Your task to perform on an android device: Open the phone app and click the voicemail tab. Image 0: 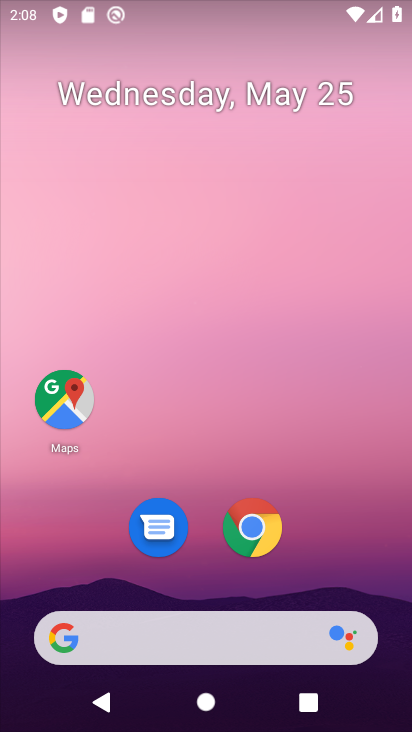
Step 0: click (268, 78)
Your task to perform on an android device: Open the phone app and click the voicemail tab. Image 1: 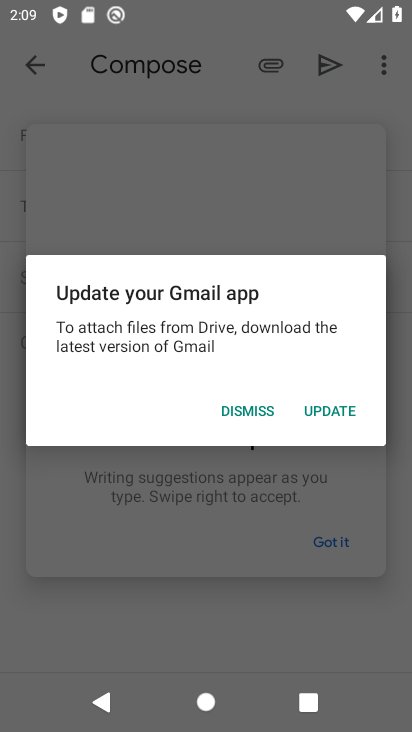
Step 1: press back button
Your task to perform on an android device: Open the phone app and click the voicemail tab. Image 2: 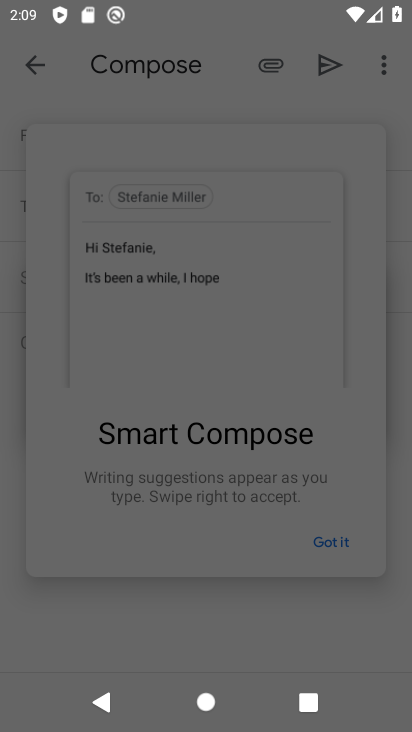
Step 2: press home button
Your task to perform on an android device: Open the phone app and click the voicemail tab. Image 3: 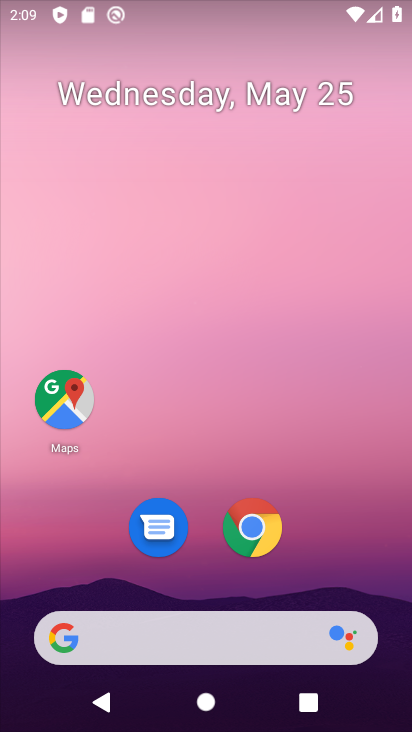
Step 3: drag from (214, 572) to (323, 154)
Your task to perform on an android device: Open the phone app and click the voicemail tab. Image 4: 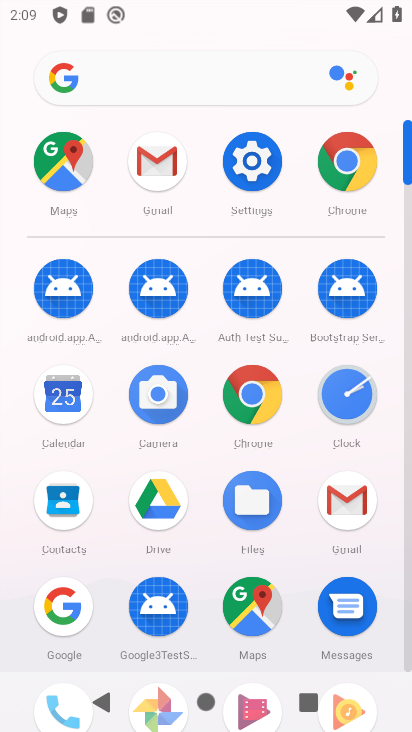
Step 4: drag from (203, 604) to (220, 265)
Your task to perform on an android device: Open the phone app and click the voicemail tab. Image 5: 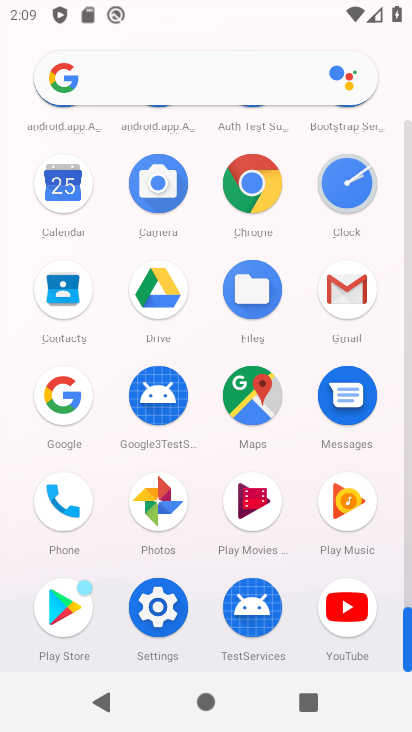
Step 5: click (55, 508)
Your task to perform on an android device: Open the phone app and click the voicemail tab. Image 6: 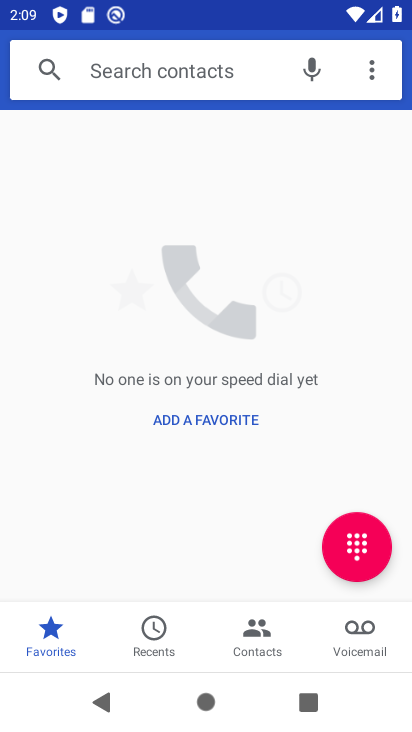
Step 6: click (340, 627)
Your task to perform on an android device: Open the phone app and click the voicemail tab. Image 7: 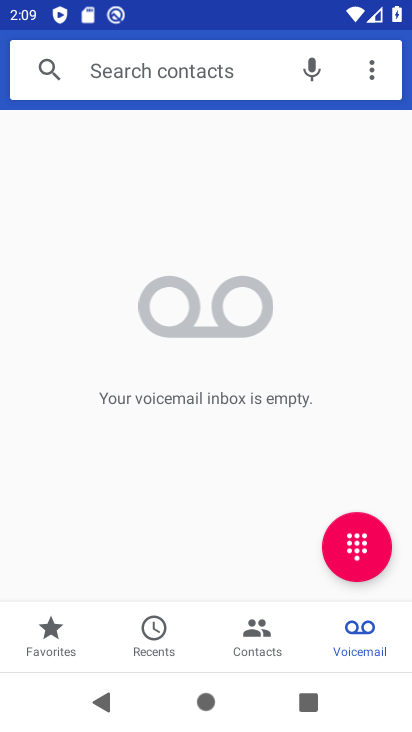
Step 7: task complete